Your task to perform on an android device: open app "Viber Messenger" (install if not already installed) and enter user name: "blameless@icloud.com" and password: "Yoknapatawpha" Image 0: 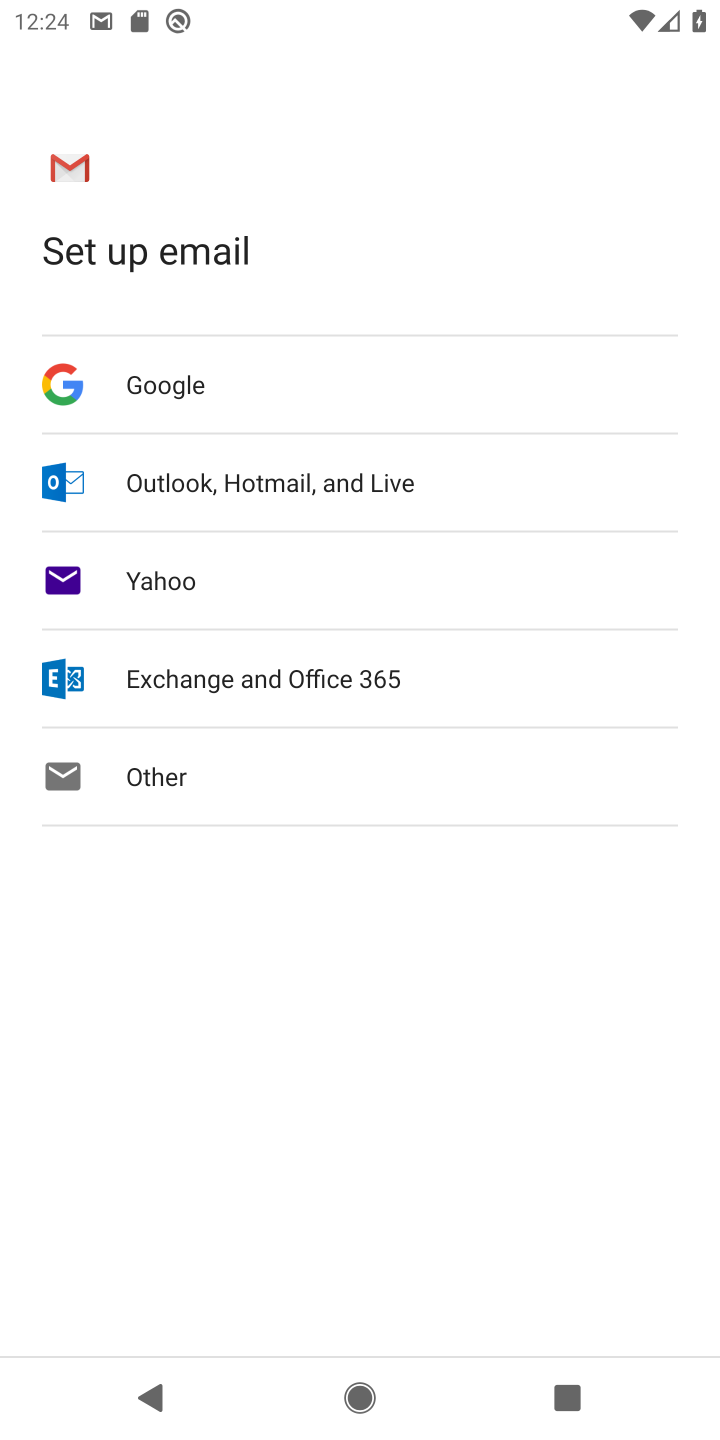
Step 0: press home button
Your task to perform on an android device: open app "Viber Messenger" (install if not already installed) and enter user name: "blameless@icloud.com" and password: "Yoknapatawpha" Image 1: 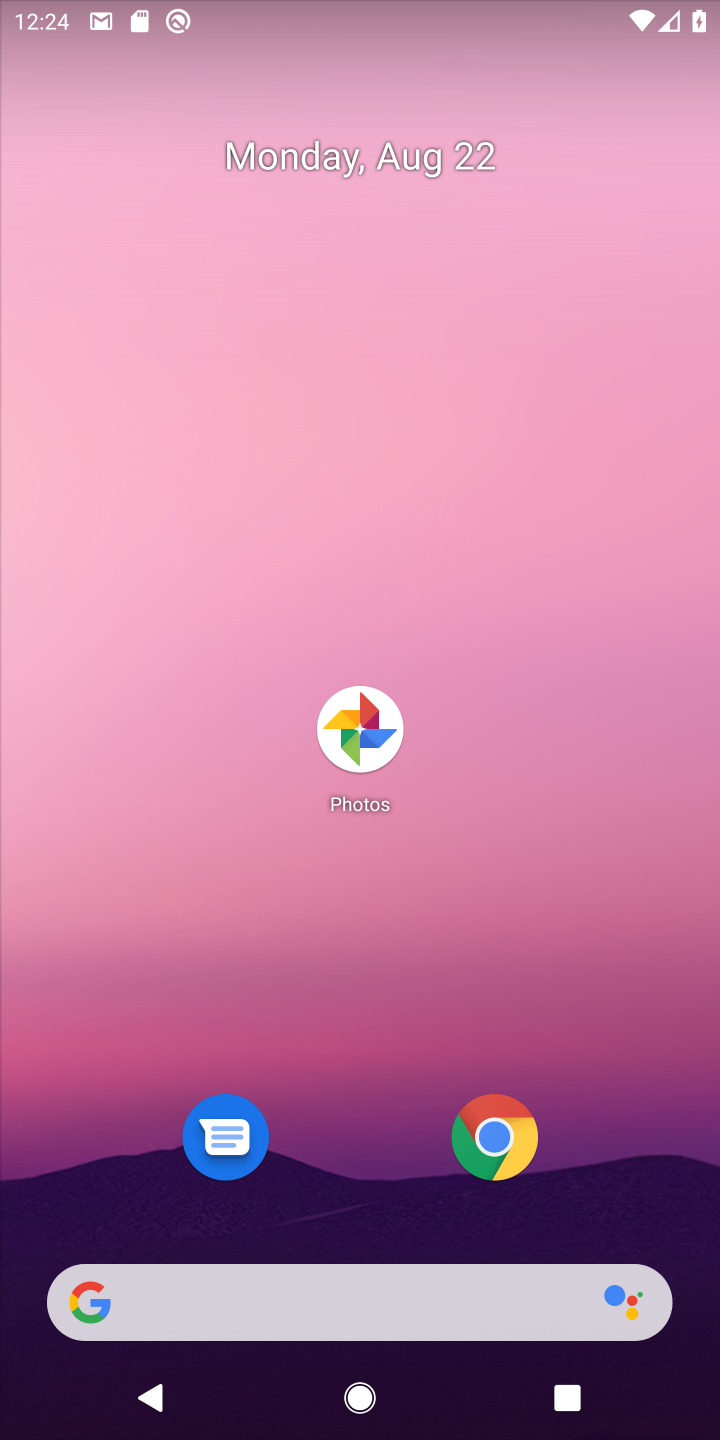
Step 1: drag from (539, 776) to (470, 134)
Your task to perform on an android device: open app "Viber Messenger" (install if not already installed) and enter user name: "blameless@icloud.com" and password: "Yoknapatawpha" Image 2: 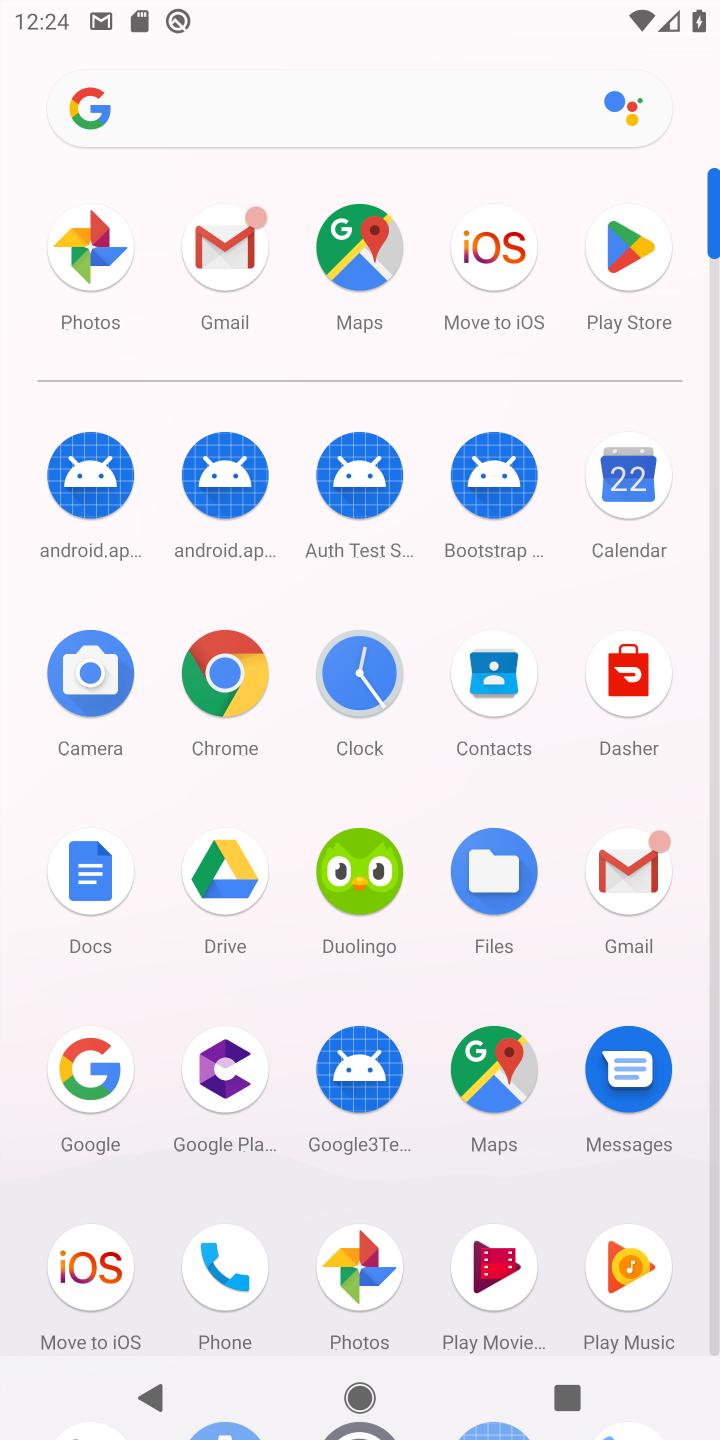
Step 2: drag from (486, 689) to (417, 355)
Your task to perform on an android device: open app "Viber Messenger" (install if not already installed) and enter user name: "blameless@icloud.com" and password: "Yoknapatawpha" Image 3: 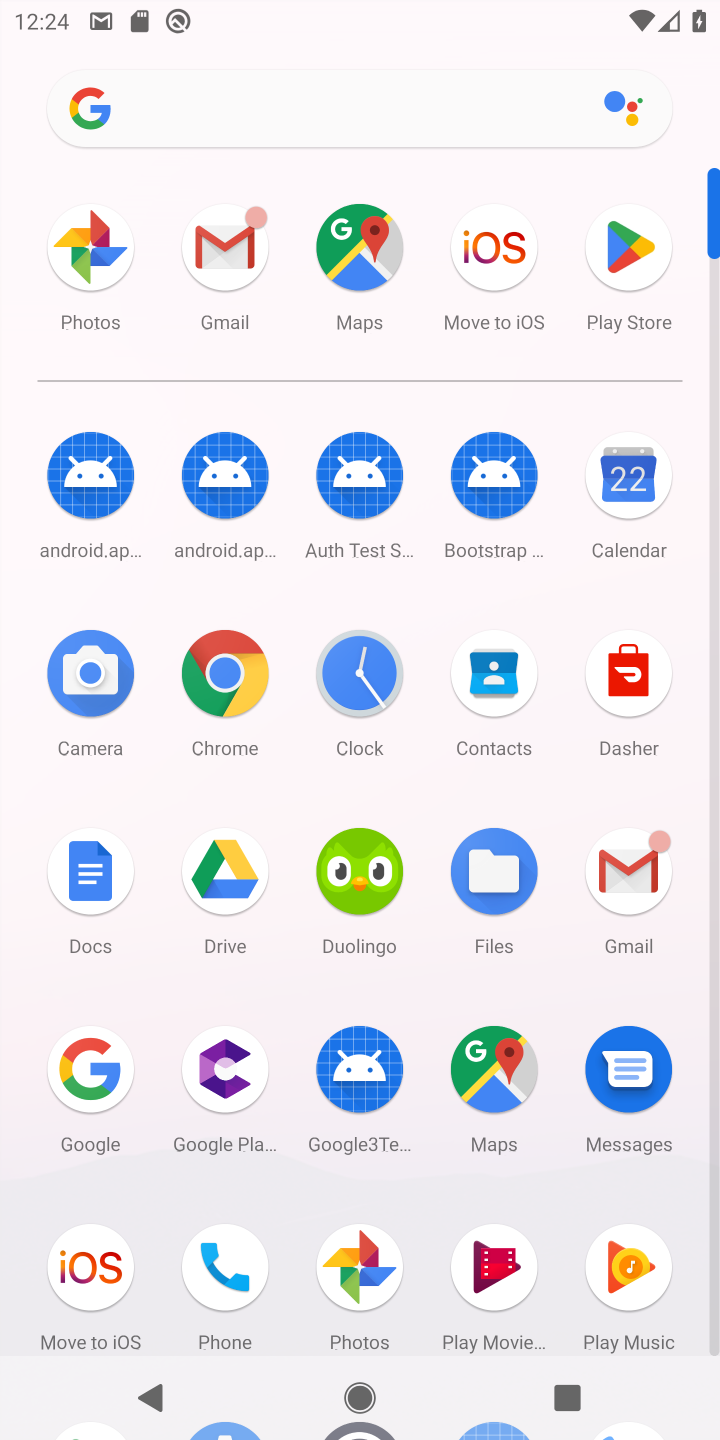
Step 3: drag from (291, 1347) to (271, 524)
Your task to perform on an android device: open app "Viber Messenger" (install if not already installed) and enter user name: "blameless@icloud.com" and password: "Yoknapatawpha" Image 4: 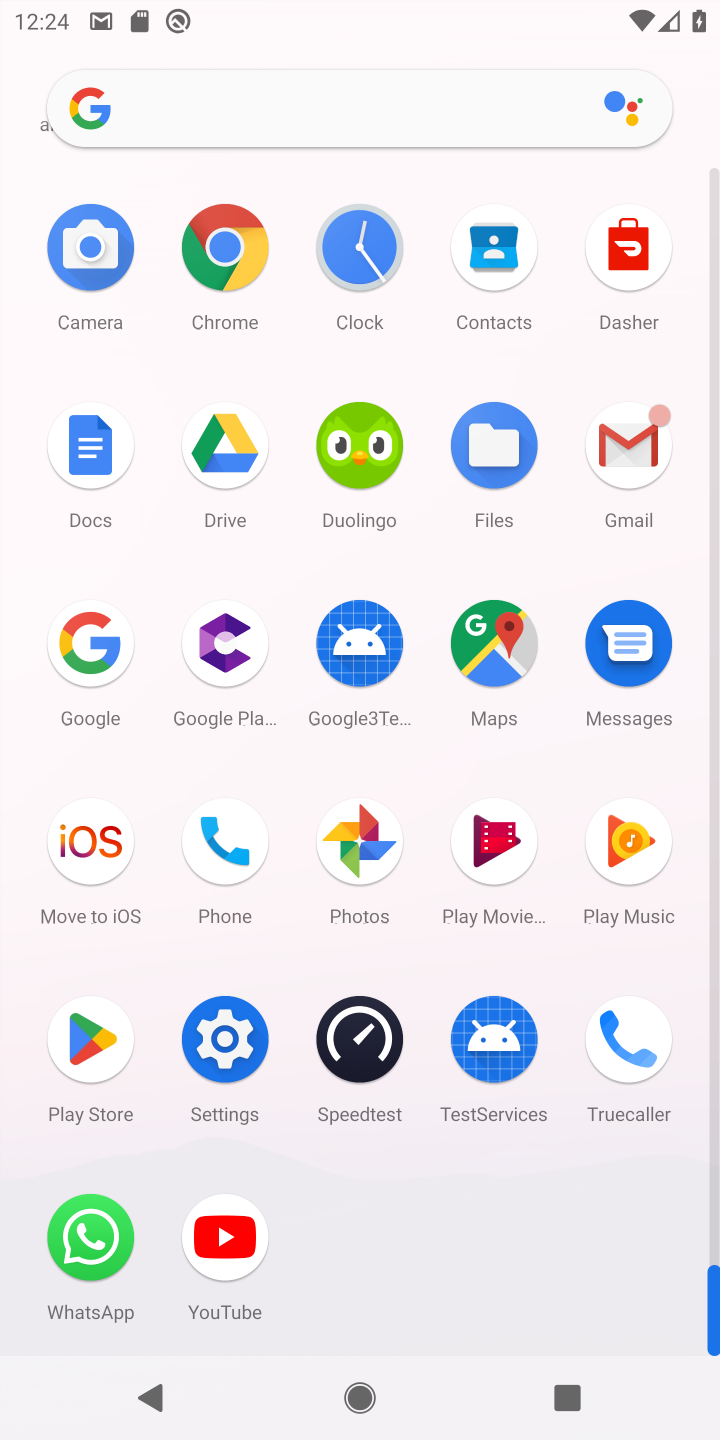
Step 4: click (97, 1039)
Your task to perform on an android device: open app "Viber Messenger" (install if not already installed) and enter user name: "blameless@icloud.com" and password: "Yoknapatawpha" Image 5: 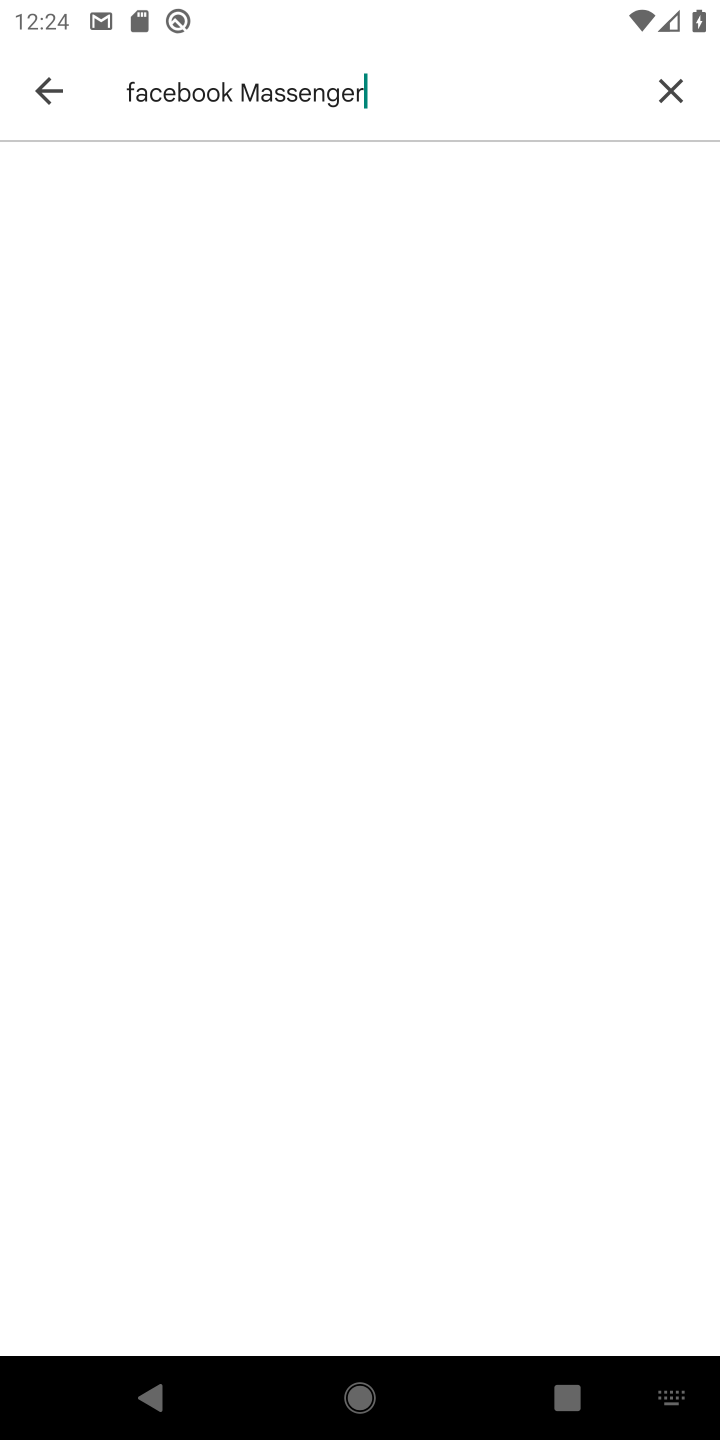
Step 5: click (668, 87)
Your task to perform on an android device: open app "Viber Messenger" (install if not already installed) and enter user name: "blameless@icloud.com" and password: "Yoknapatawpha" Image 6: 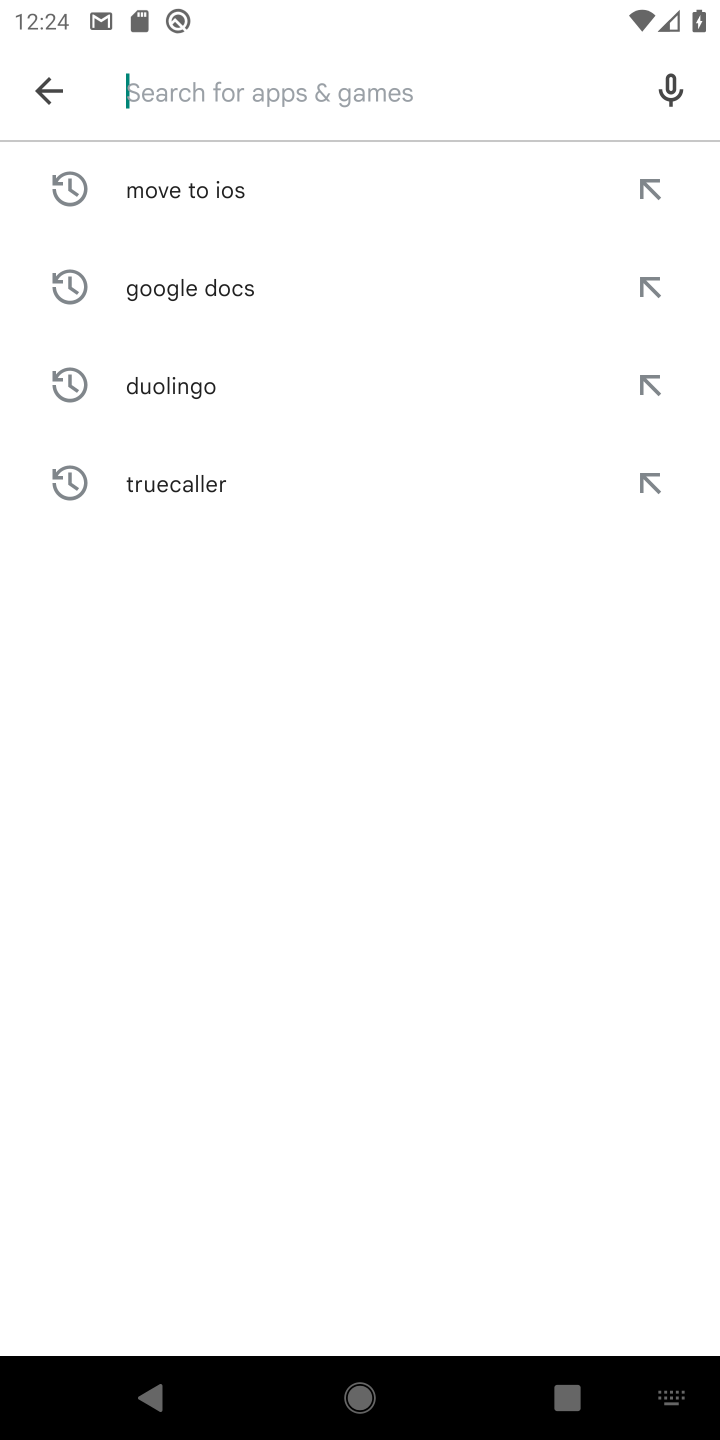
Step 6: type "viber messenger"
Your task to perform on an android device: open app "Viber Messenger" (install if not already installed) and enter user name: "blameless@icloud.com" and password: "Yoknapatawpha" Image 7: 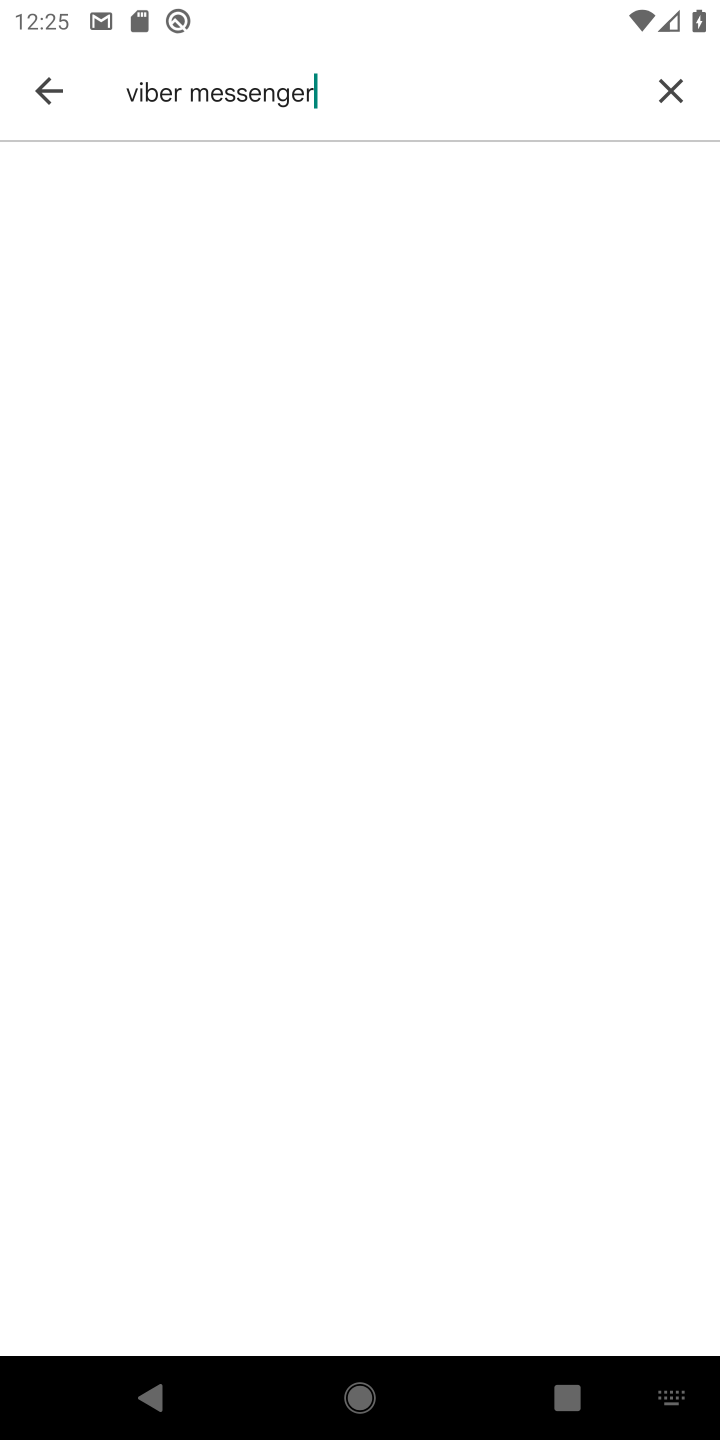
Step 7: task complete